Your task to perform on an android device: choose inbox layout in the gmail app Image 0: 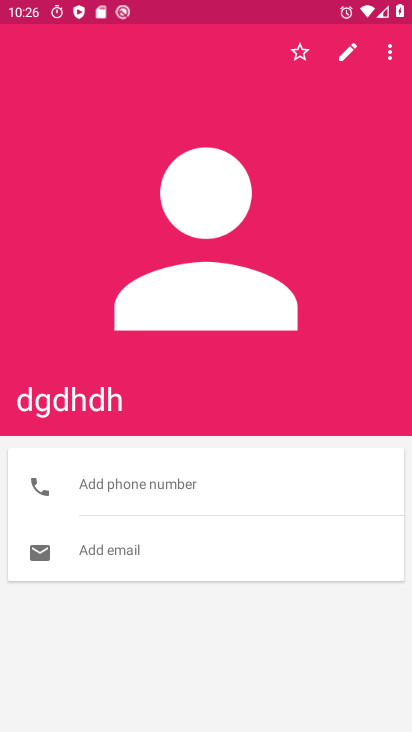
Step 0: press home button
Your task to perform on an android device: choose inbox layout in the gmail app Image 1: 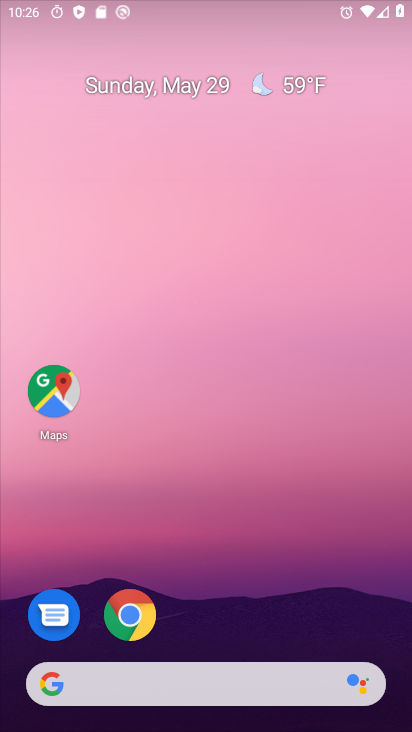
Step 1: drag from (263, 515) to (297, 54)
Your task to perform on an android device: choose inbox layout in the gmail app Image 2: 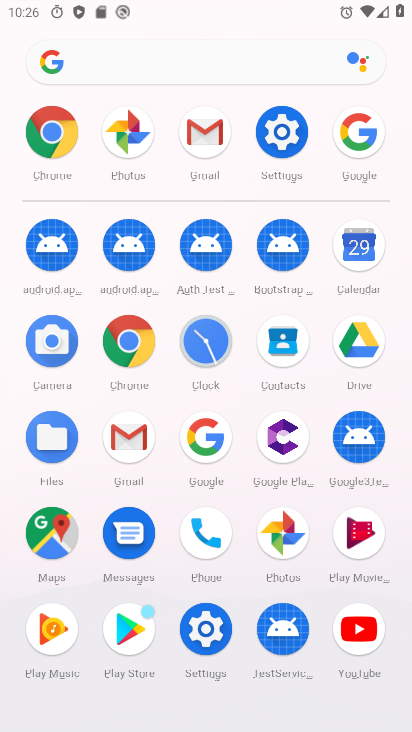
Step 2: click (209, 121)
Your task to perform on an android device: choose inbox layout in the gmail app Image 3: 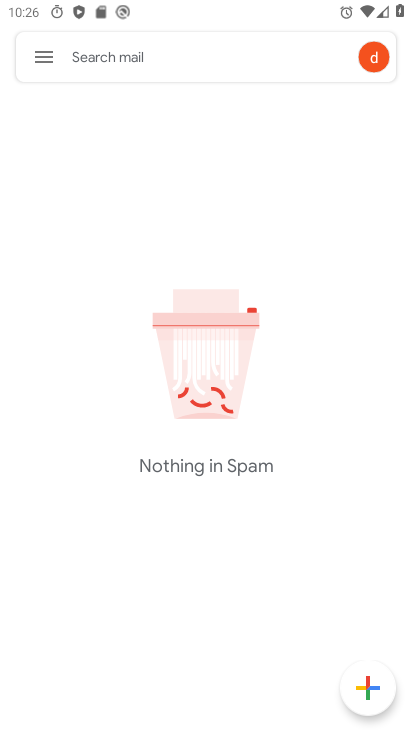
Step 3: click (47, 59)
Your task to perform on an android device: choose inbox layout in the gmail app Image 4: 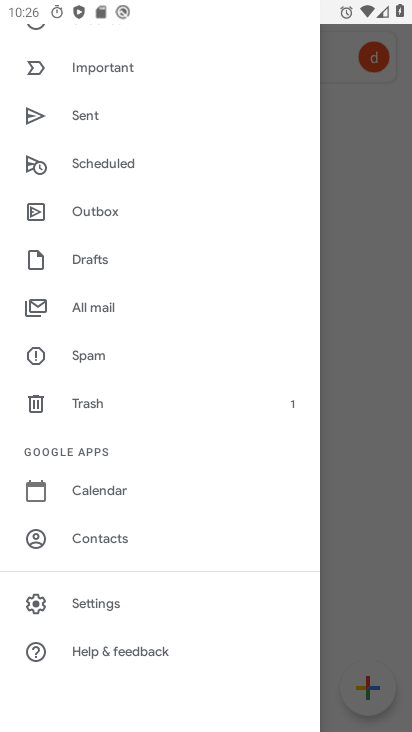
Step 4: drag from (217, 114) to (222, 475)
Your task to perform on an android device: choose inbox layout in the gmail app Image 5: 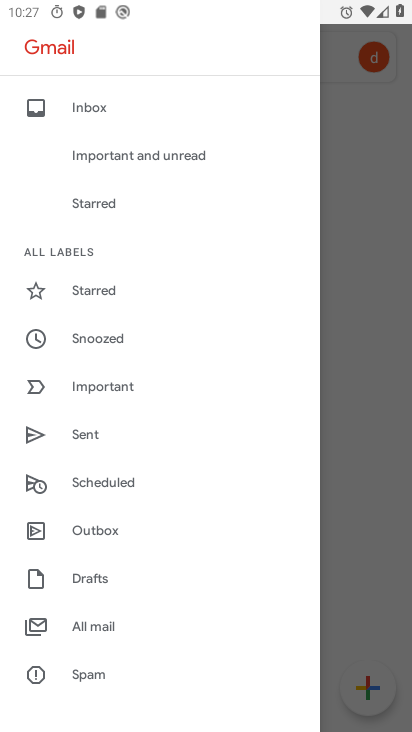
Step 5: drag from (134, 574) to (189, 106)
Your task to perform on an android device: choose inbox layout in the gmail app Image 6: 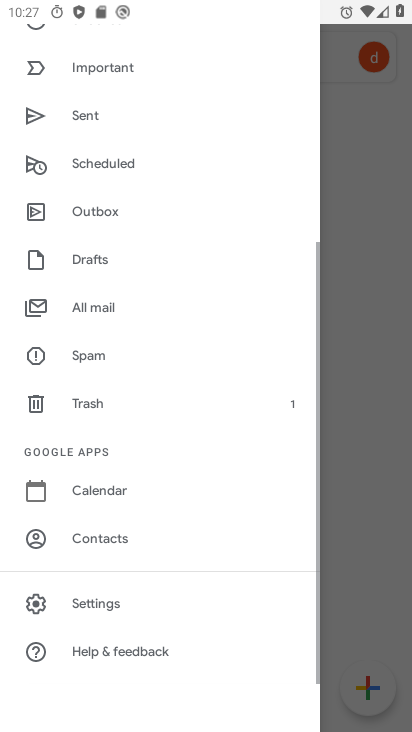
Step 6: click (99, 610)
Your task to perform on an android device: choose inbox layout in the gmail app Image 7: 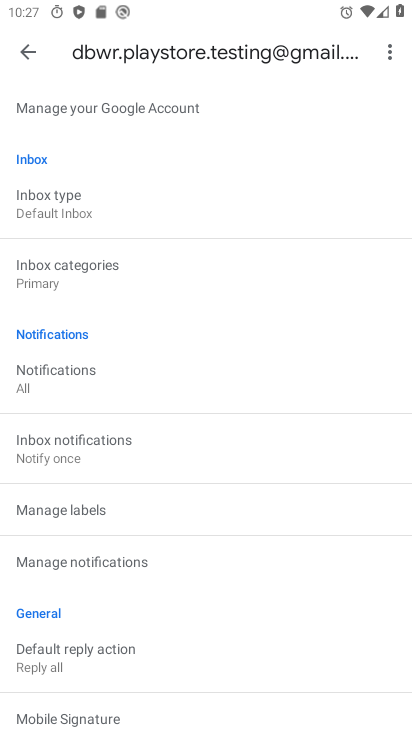
Step 7: click (86, 216)
Your task to perform on an android device: choose inbox layout in the gmail app Image 8: 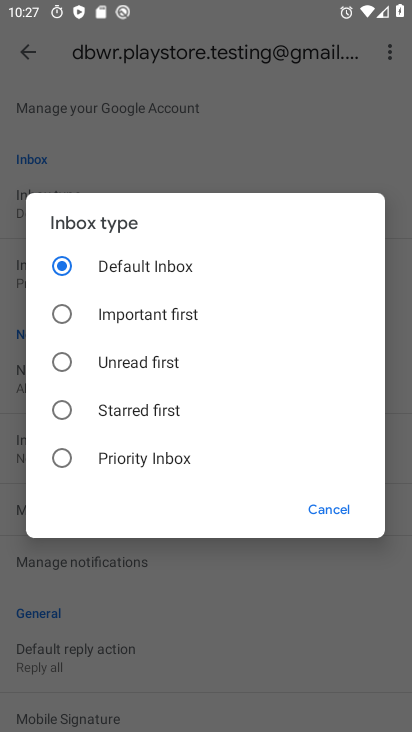
Step 8: click (66, 463)
Your task to perform on an android device: choose inbox layout in the gmail app Image 9: 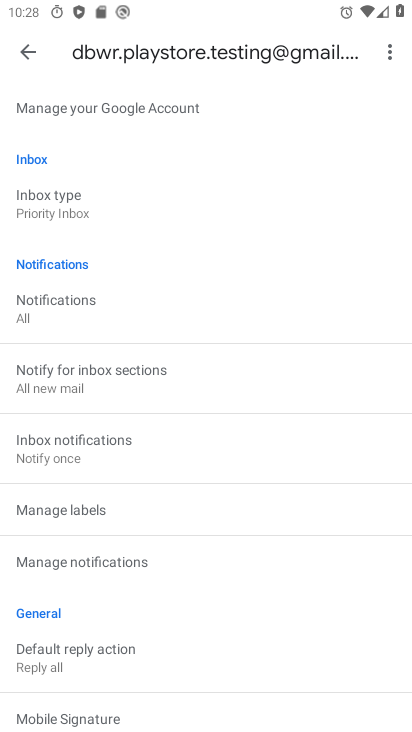
Step 9: task complete